Your task to perform on an android device: change the upload size in google photos Image 0: 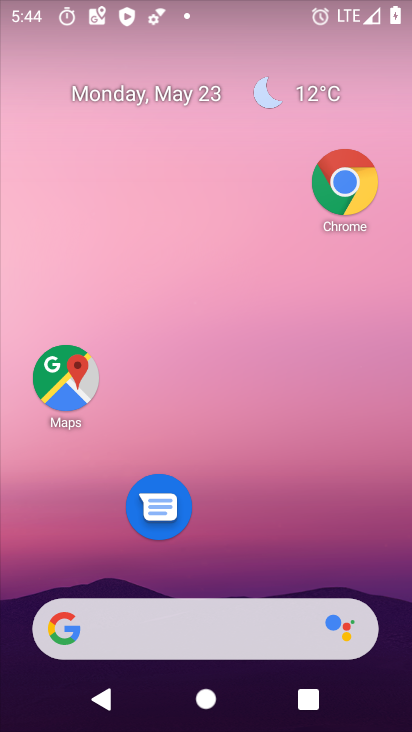
Step 0: drag from (177, 569) to (281, 51)
Your task to perform on an android device: change the upload size in google photos Image 1: 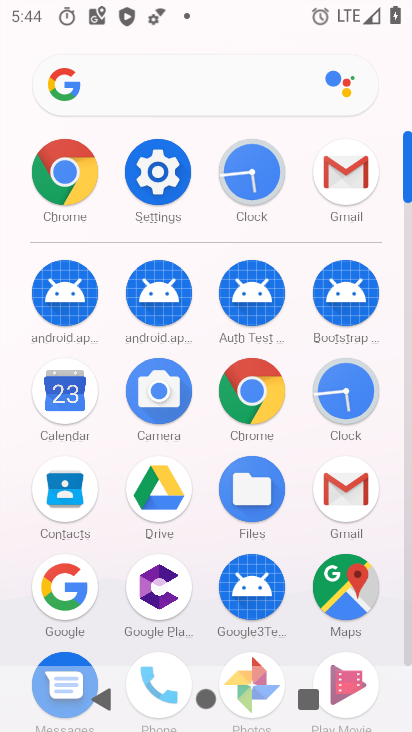
Step 1: click (252, 657)
Your task to perform on an android device: change the upload size in google photos Image 2: 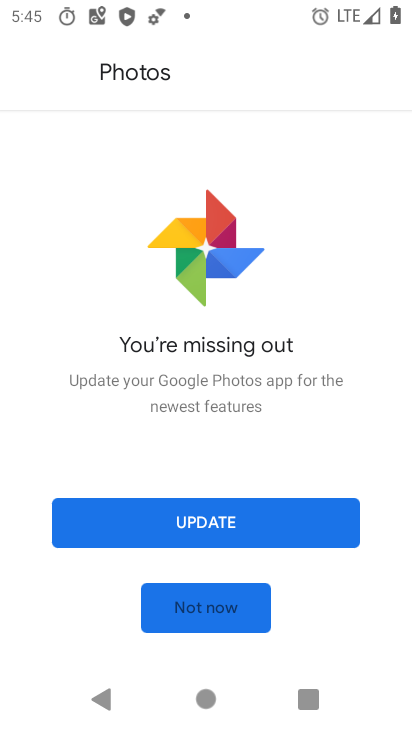
Step 2: click (214, 592)
Your task to perform on an android device: change the upload size in google photos Image 3: 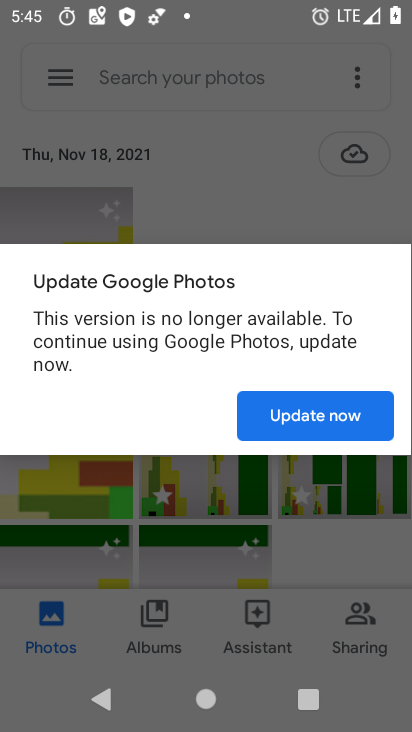
Step 3: click (335, 406)
Your task to perform on an android device: change the upload size in google photos Image 4: 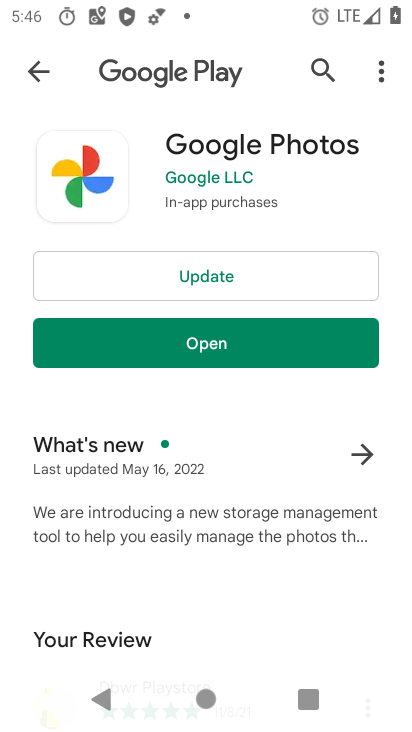
Step 4: click (274, 344)
Your task to perform on an android device: change the upload size in google photos Image 5: 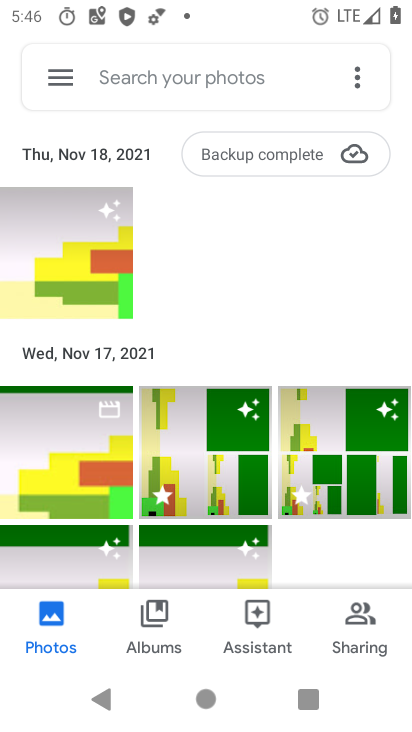
Step 5: click (61, 92)
Your task to perform on an android device: change the upload size in google photos Image 6: 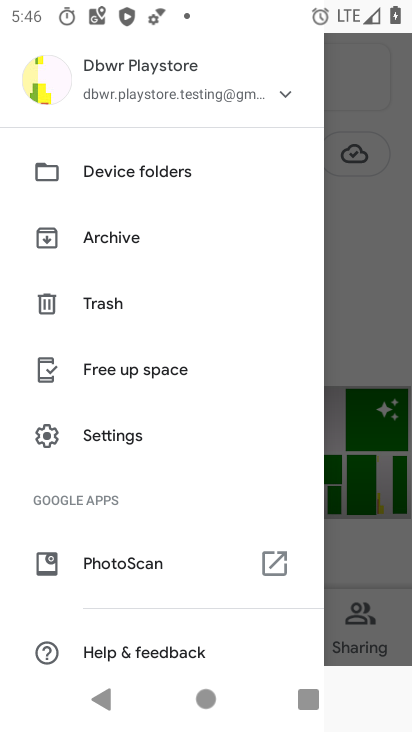
Step 6: click (173, 431)
Your task to perform on an android device: change the upload size in google photos Image 7: 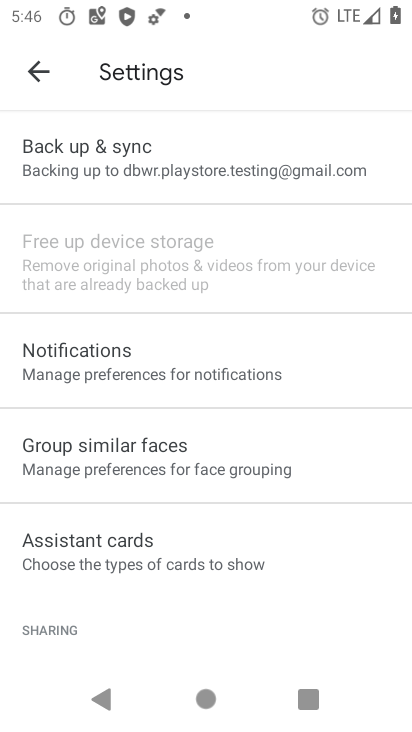
Step 7: click (181, 164)
Your task to perform on an android device: change the upload size in google photos Image 8: 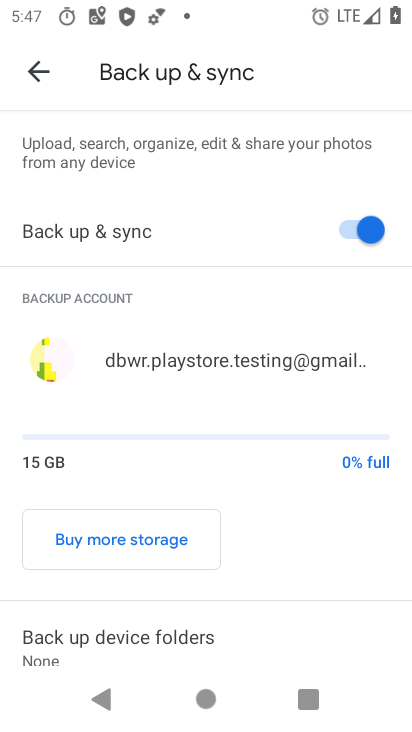
Step 8: drag from (207, 440) to (252, 145)
Your task to perform on an android device: change the upload size in google photos Image 9: 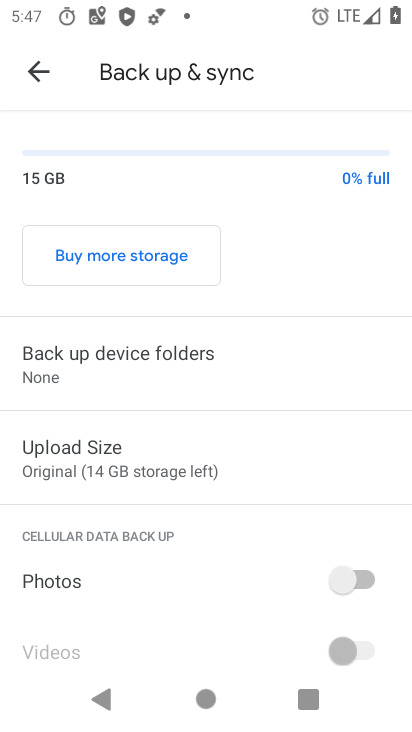
Step 9: click (189, 458)
Your task to perform on an android device: change the upload size in google photos Image 10: 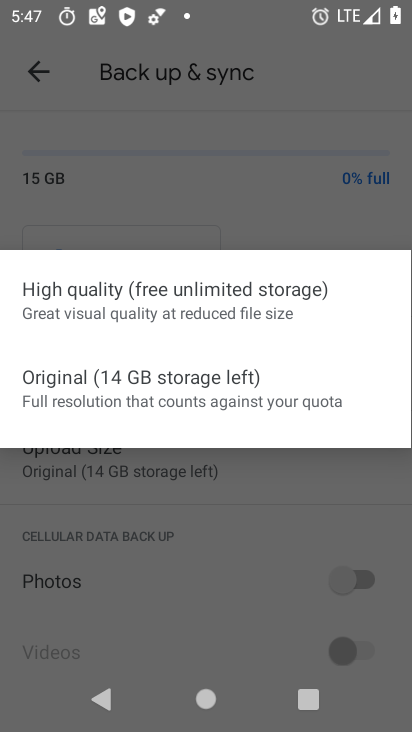
Step 10: click (107, 314)
Your task to perform on an android device: change the upload size in google photos Image 11: 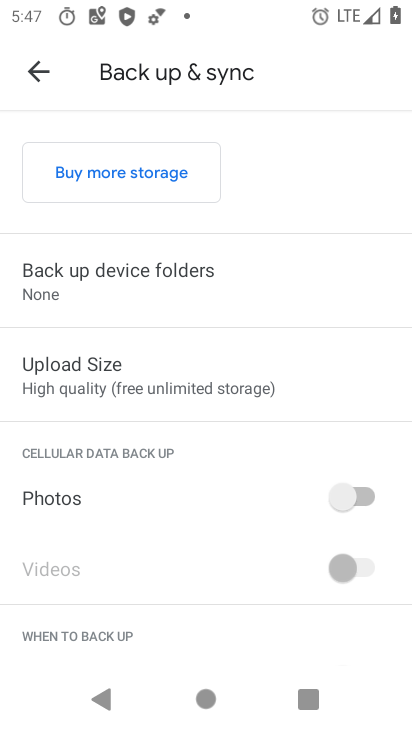
Step 11: task complete